Your task to perform on an android device: Check the settings for the Uber app Image 0: 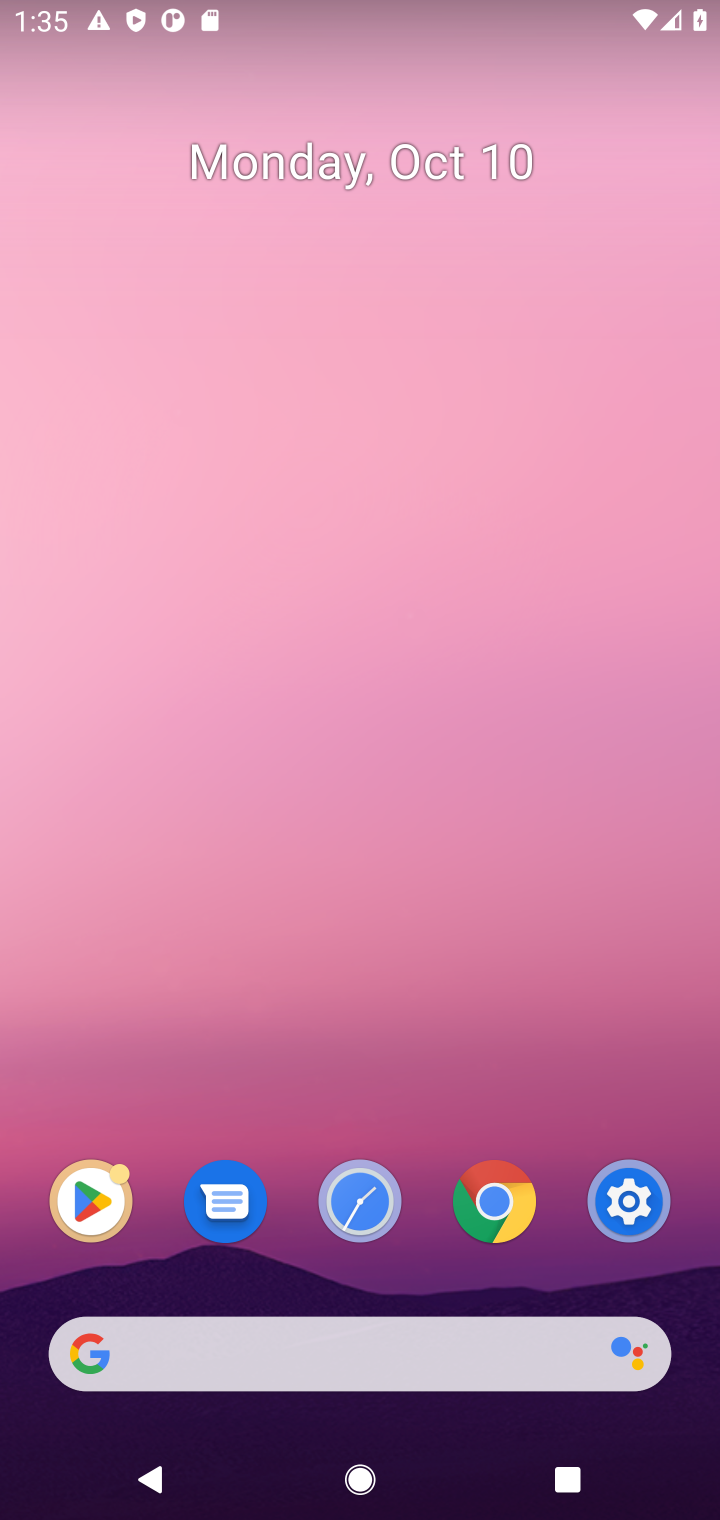
Step 0: drag from (436, 897) to (397, 576)
Your task to perform on an android device: Check the settings for the Uber app Image 1: 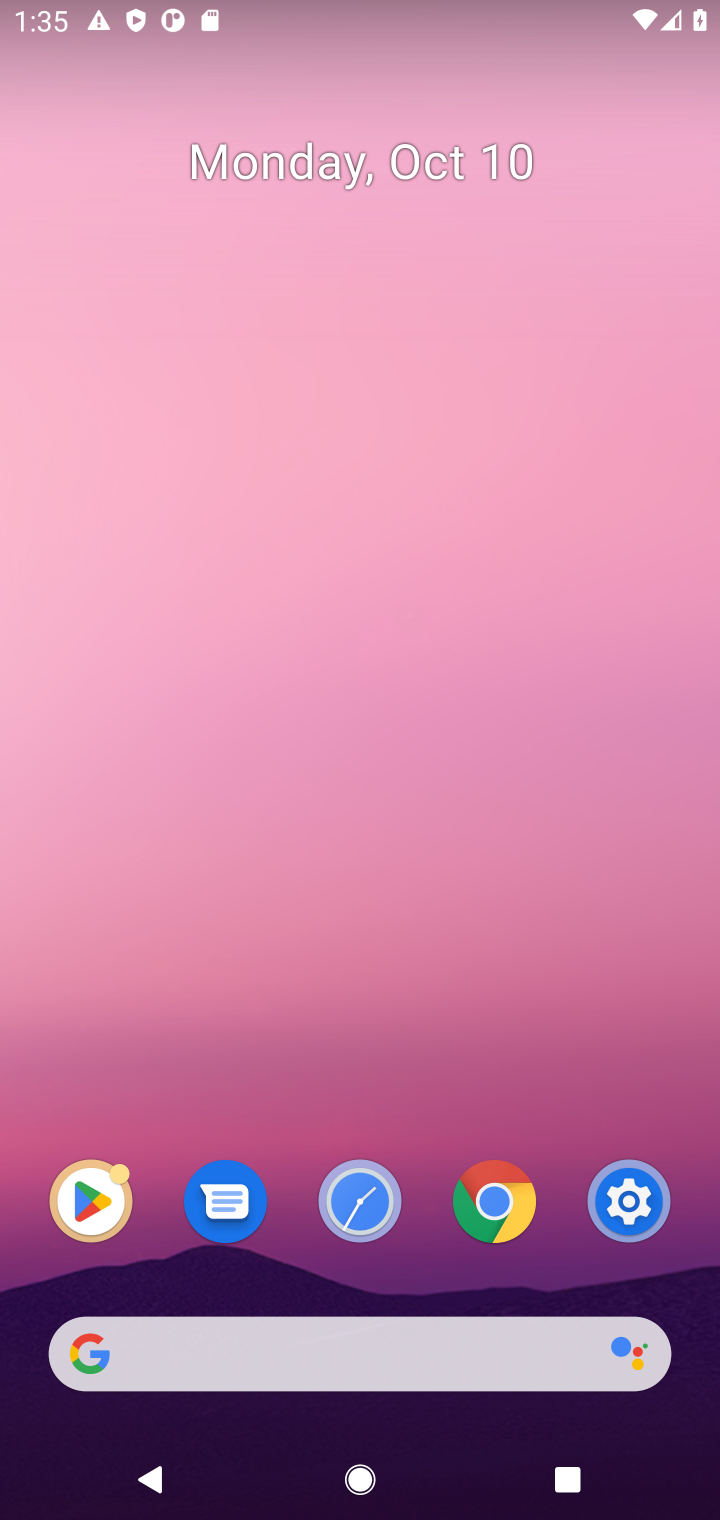
Step 1: drag from (322, 372) to (326, 10)
Your task to perform on an android device: Check the settings for the Uber app Image 2: 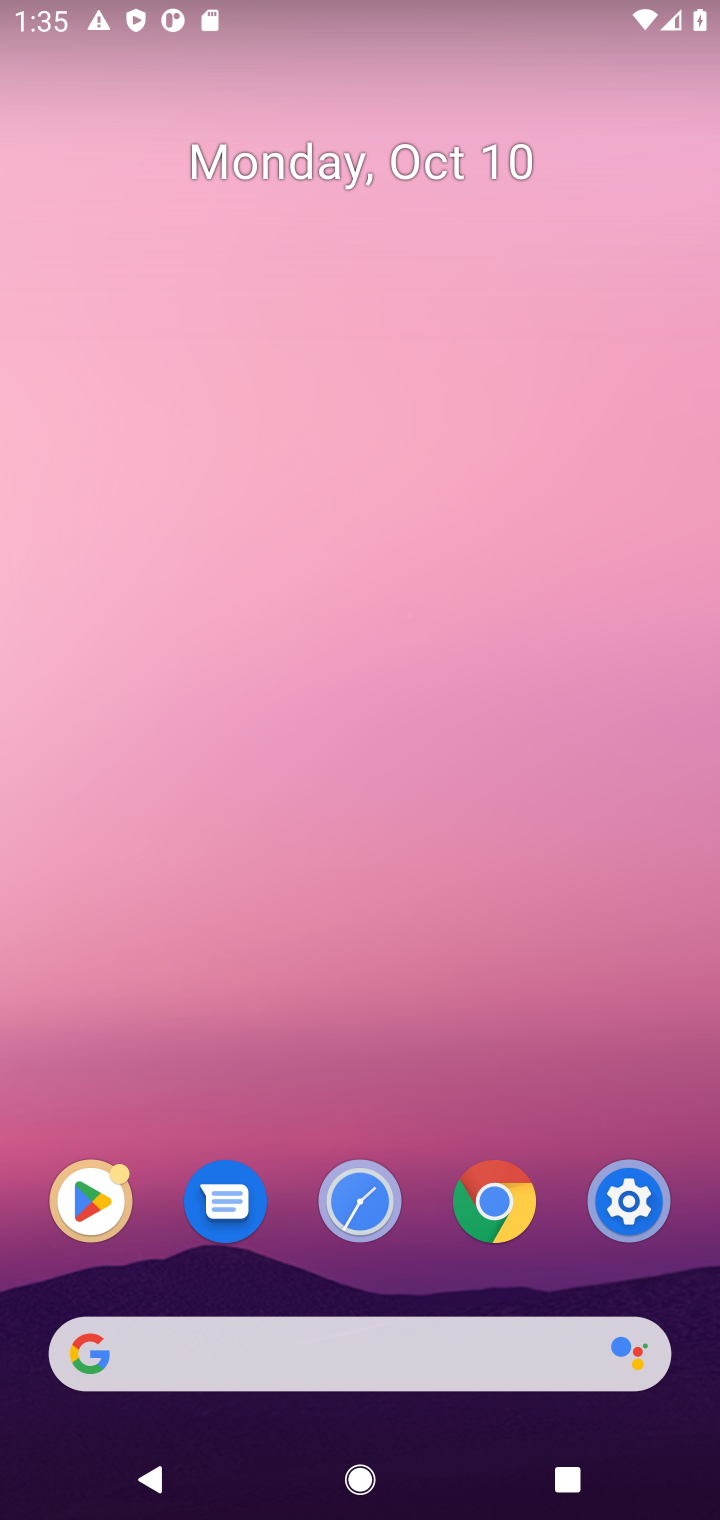
Step 2: drag from (474, 1244) to (474, 92)
Your task to perform on an android device: Check the settings for the Uber app Image 3: 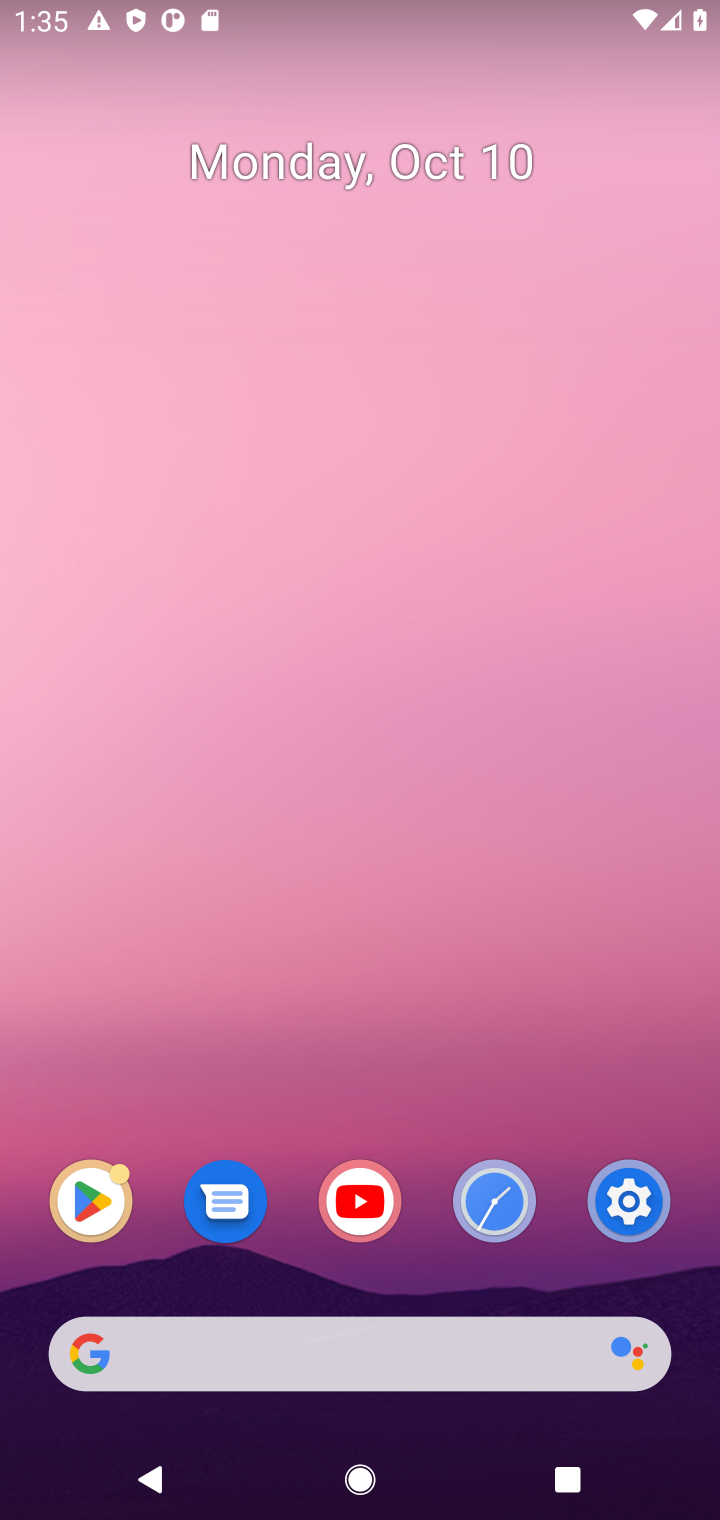
Step 3: drag from (466, 495) to (466, 292)
Your task to perform on an android device: Check the settings for the Uber app Image 4: 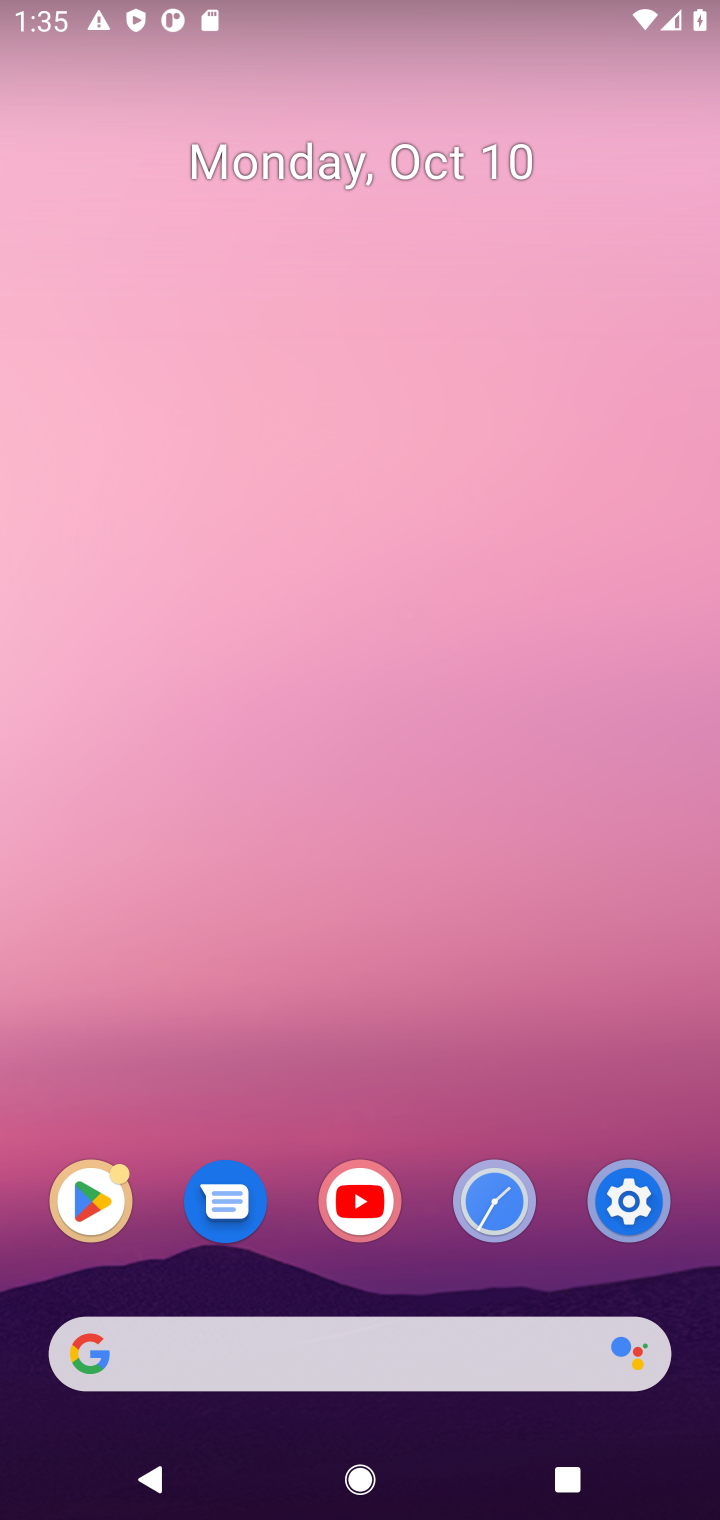
Step 4: drag from (283, 987) to (286, 215)
Your task to perform on an android device: Check the settings for the Uber app Image 5: 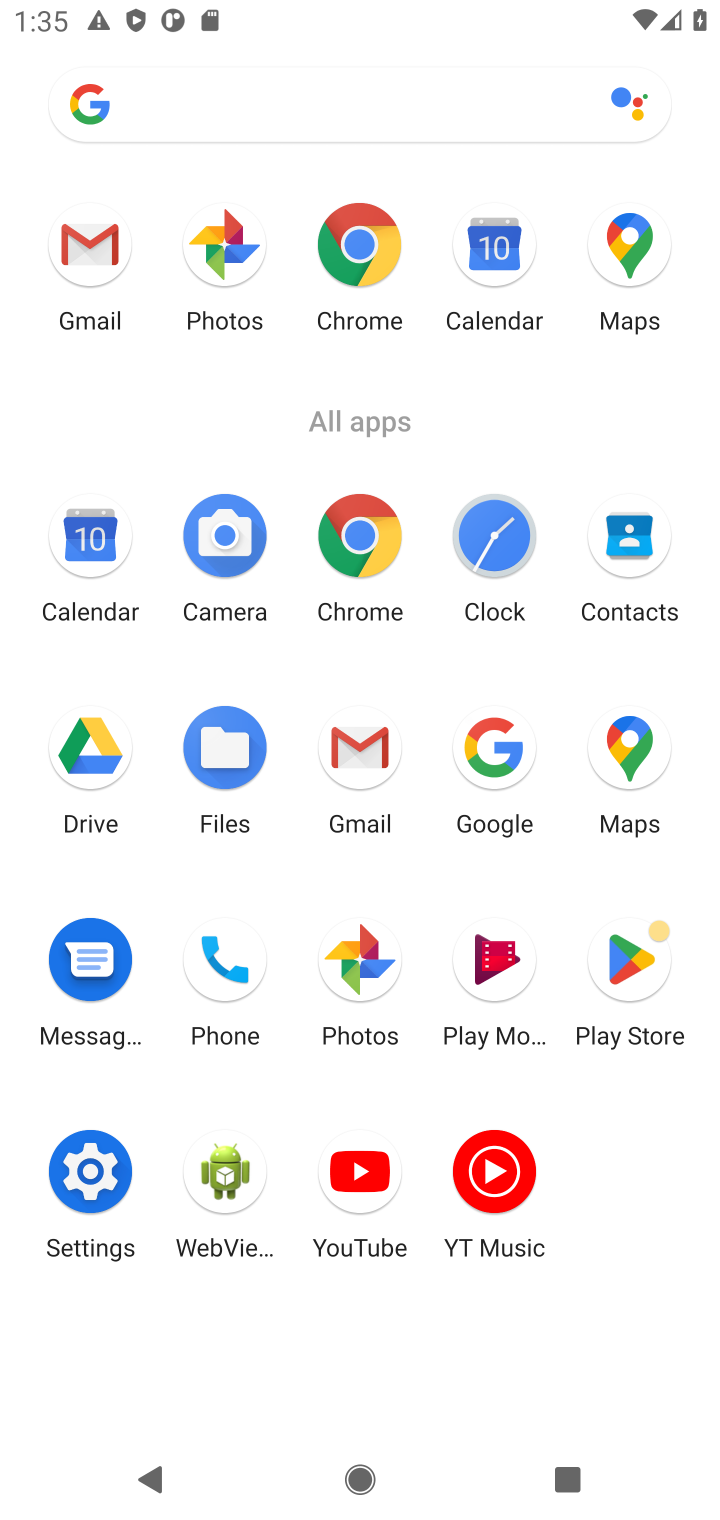
Step 5: click (638, 980)
Your task to perform on an android device: Check the settings for the Uber app Image 6: 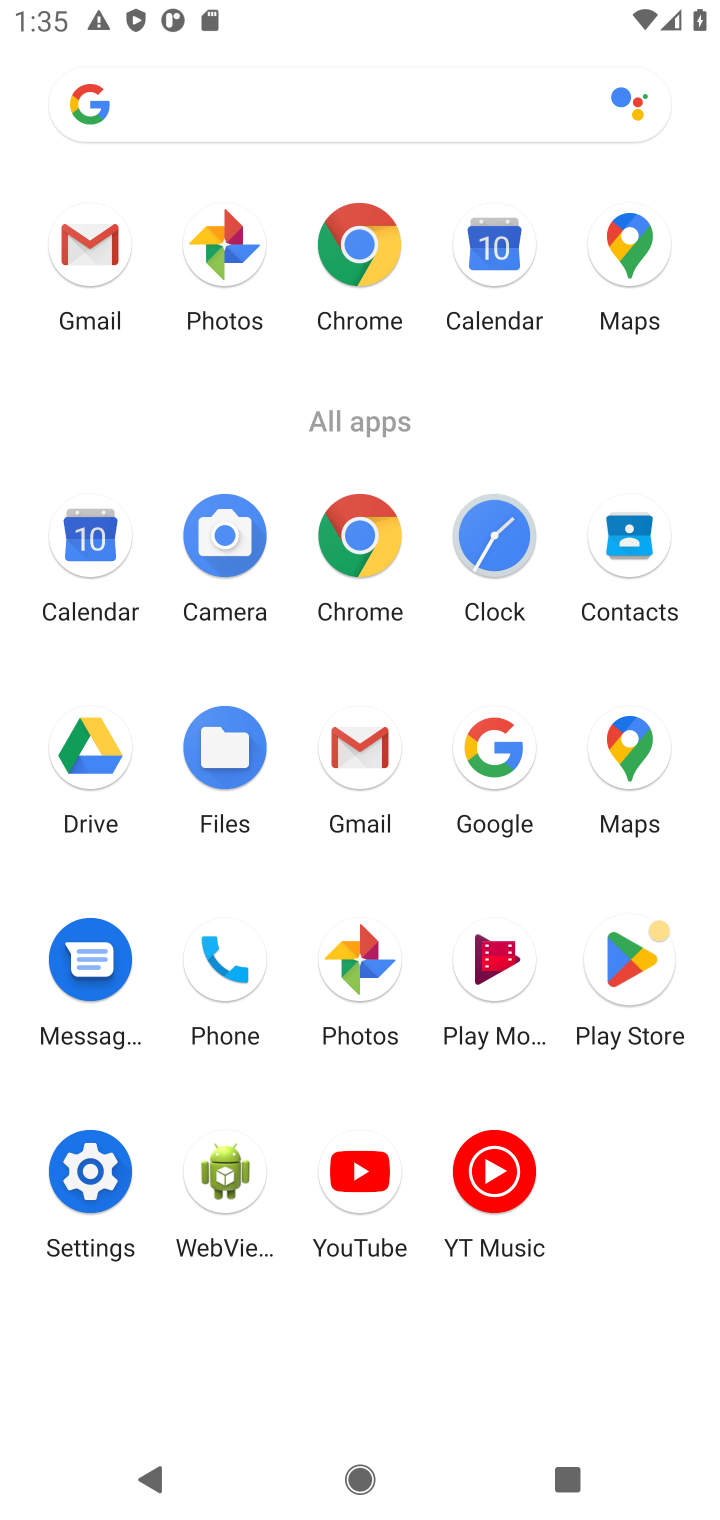
Step 6: click (638, 977)
Your task to perform on an android device: Check the settings for the Uber app Image 7: 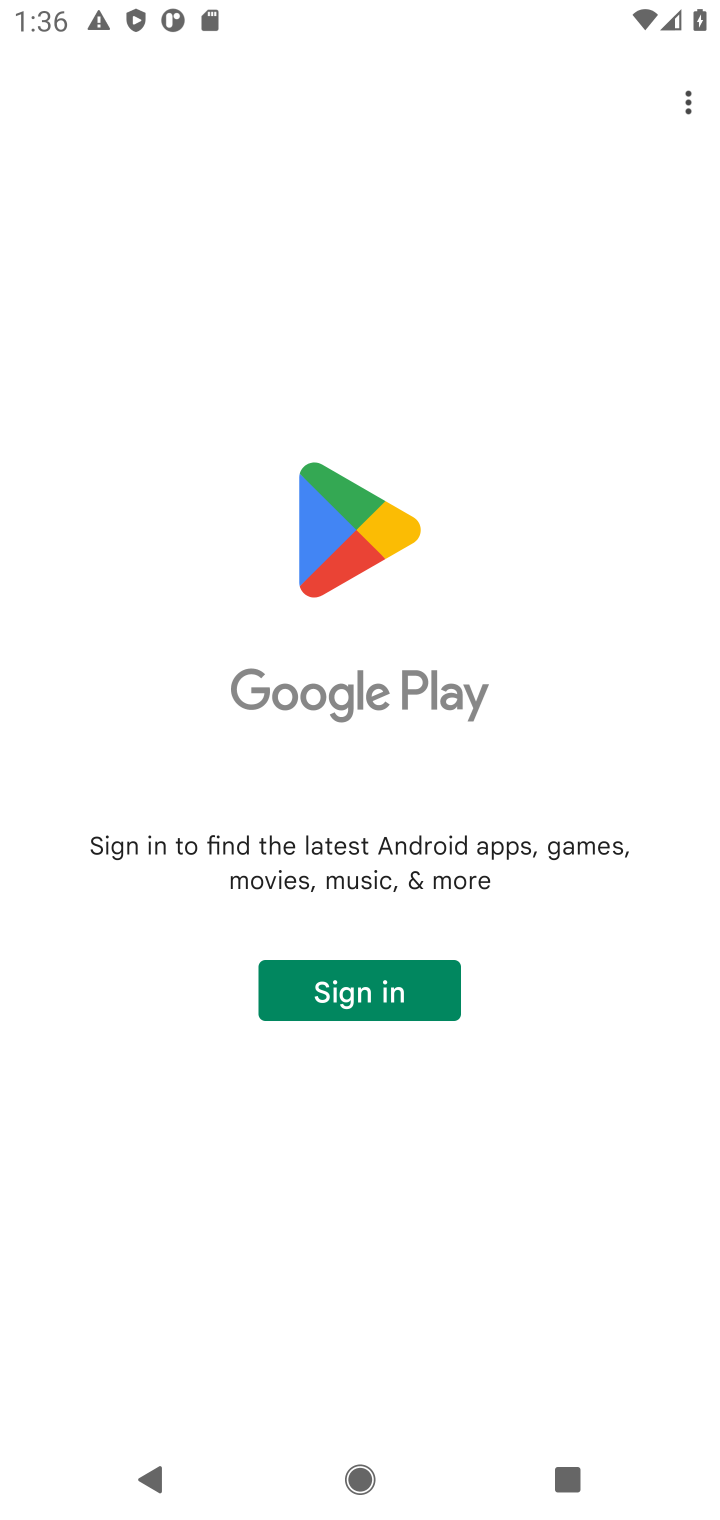
Step 7: click (314, 991)
Your task to perform on an android device: Check the settings for the Uber app Image 8: 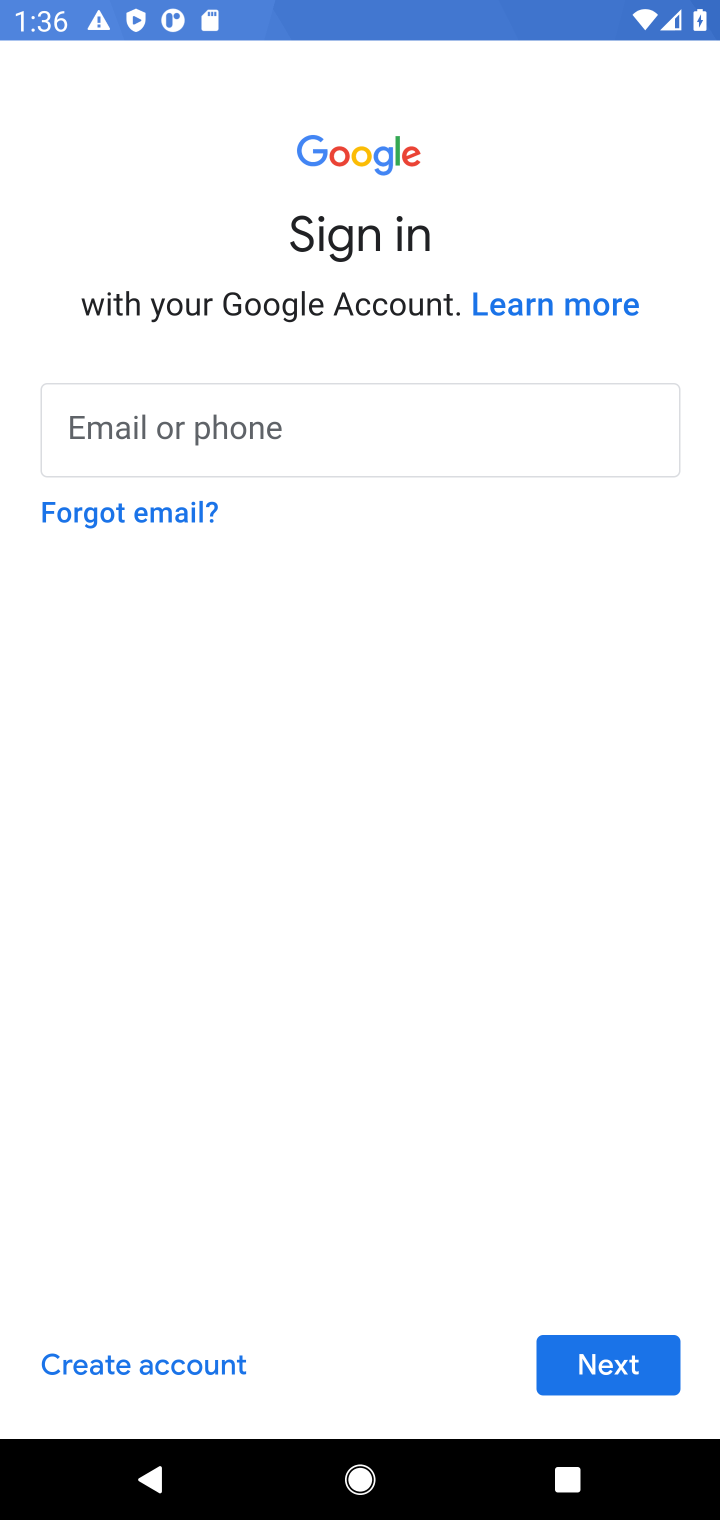
Step 8: click (645, 1358)
Your task to perform on an android device: Check the settings for the Uber app Image 9: 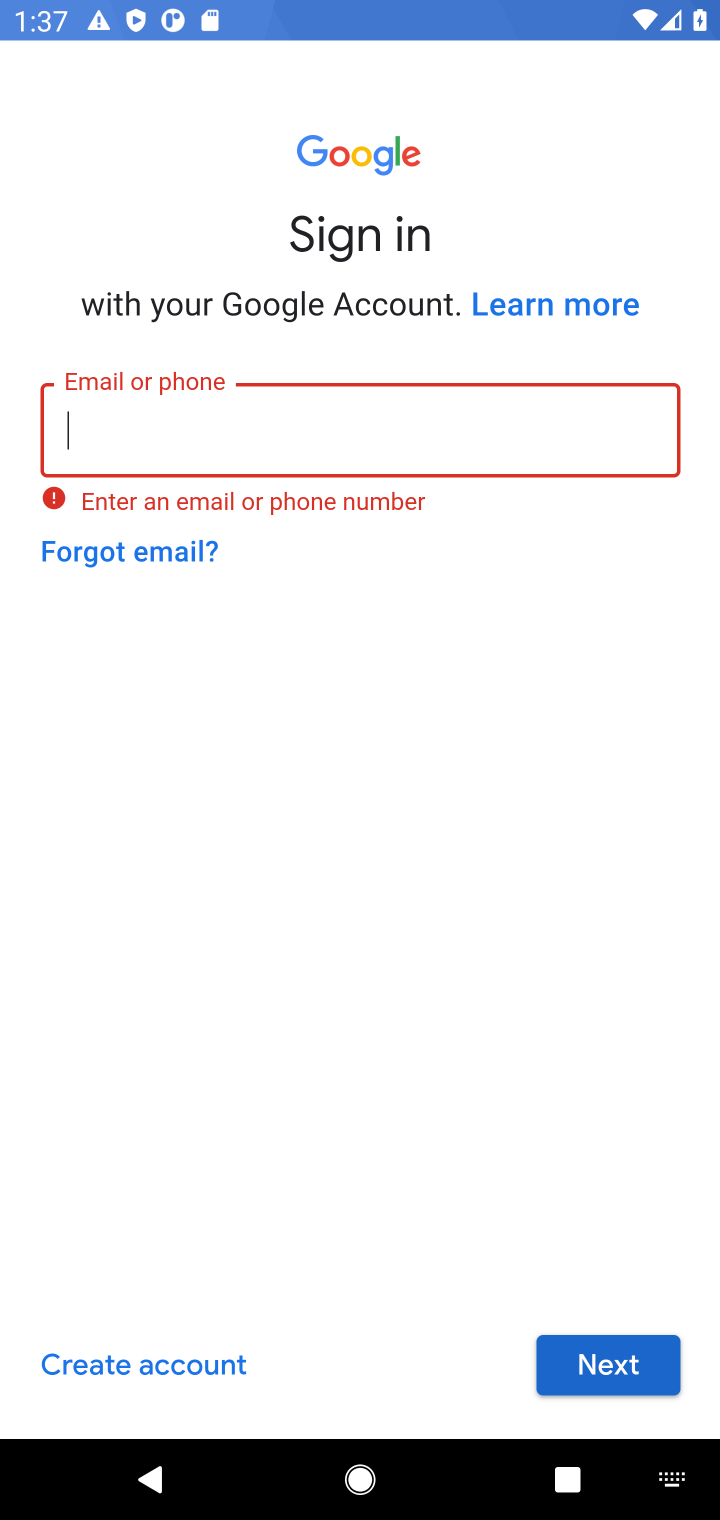
Step 9: task complete